Your task to perform on an android device: turn off notifications settings in the gmail app Image 0: 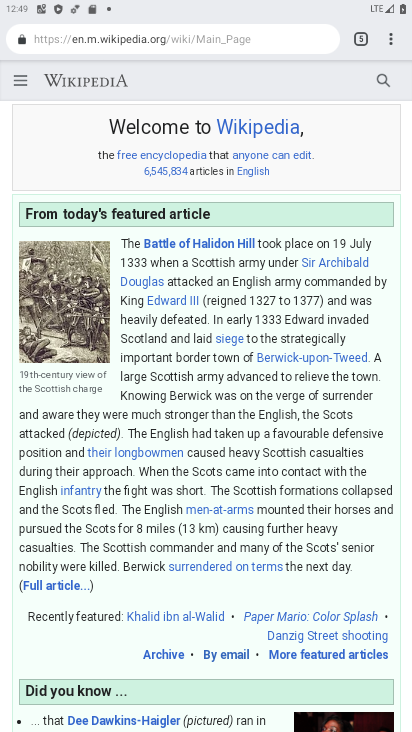
Step 0: press home button
Your task to perform on an android device: turn off notifications settings in the gmail app Image 1: 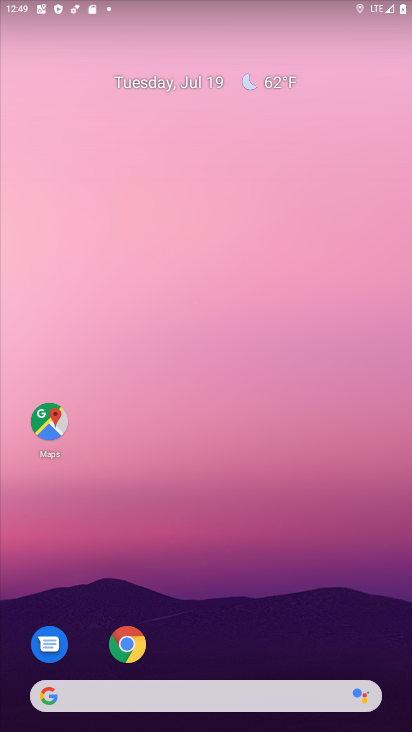
Step 1: drag from (232, 588) to (204, 124)
Your task to perform on an android device: turn off notifications settings in the gmail app Image 2: 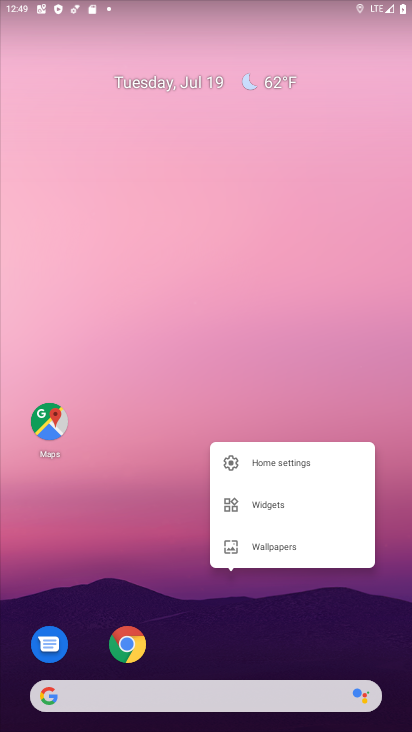
Step 2: click (204, 124)
Your task to perform on an android device: turn off notifications settings in the gmail app Image 3: 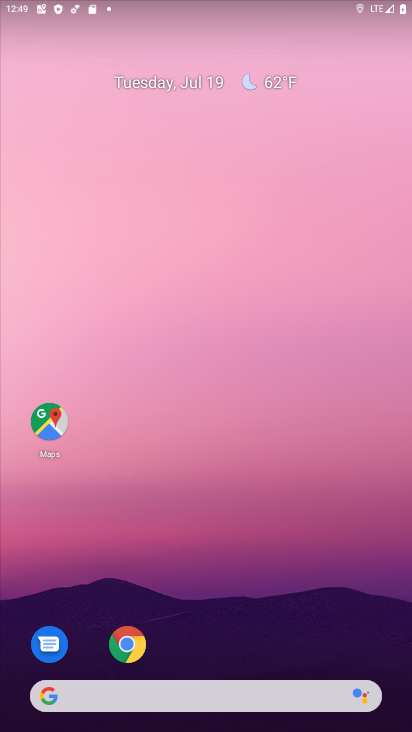
Step 3: drag from (257, 603) to (251, 157)
Your task to perform on an android device: turn off notifications settings in the gmail app Image 4: 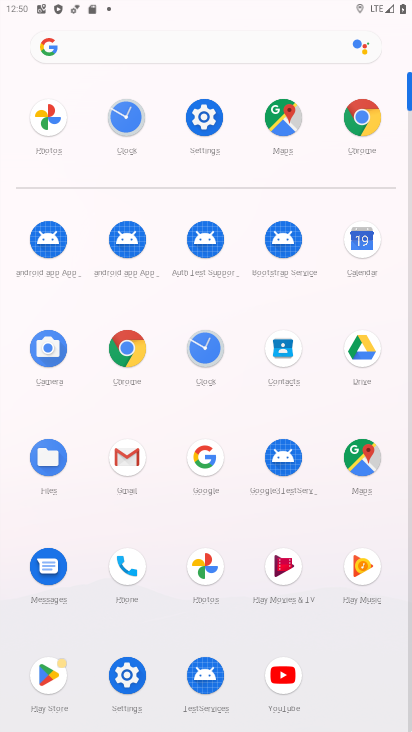
Step 4: click (121, 448)
Your task to perform on an android device: turn off notifications settings in the gmail app Image 5: 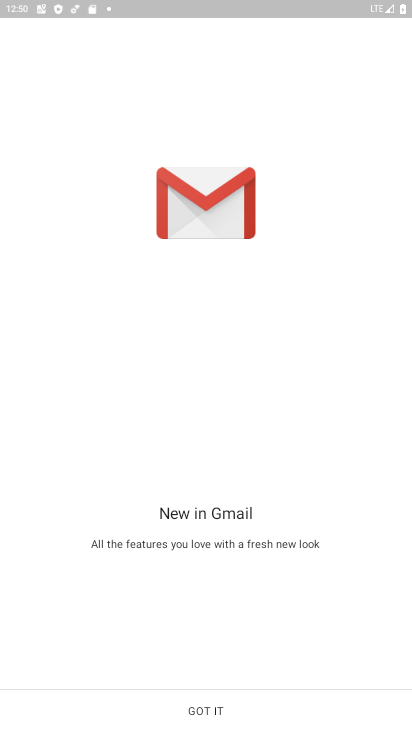
Step 5: click (202, 709)
Your task to perform on an android device: turn off notifications settings in the gmail app Image 6: 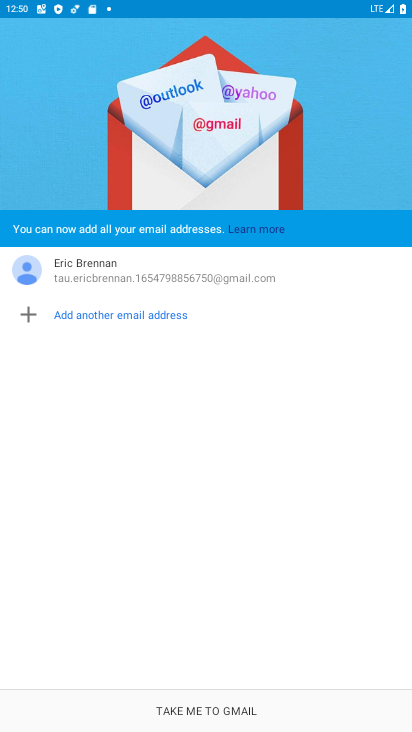
Step 6: click (202, 709)
Your task to perform on an android device: turn off notifications settings in the gmail app Image 7: 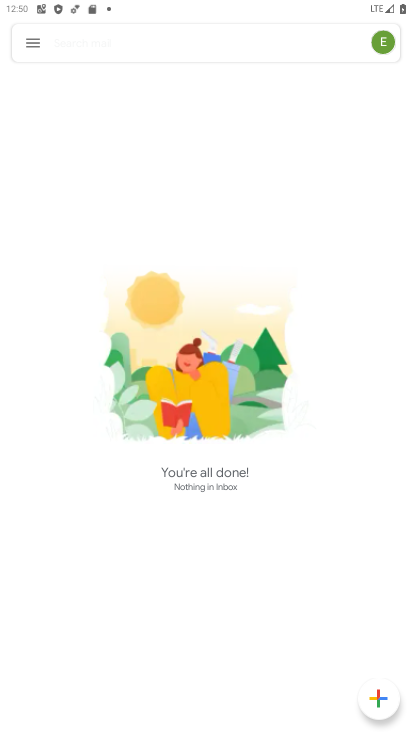
Step 7: click (30, 41)
Your task to perform on an android device: turn off notifications settings in the gmail app Image 8: 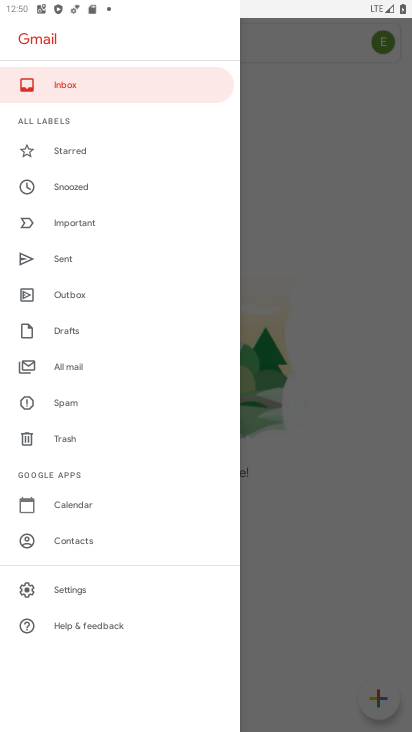
Step 8: click (67, 588)
Your task to perform on an android device: turn off notifications settings in the gmail app Image 9: 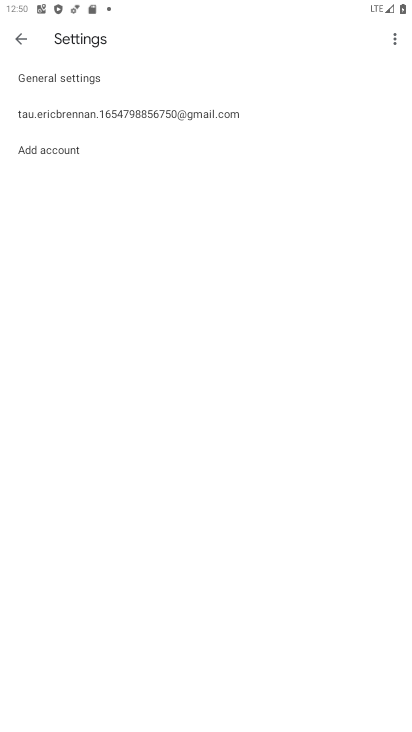
Step 9: click (66, 74)
Your task to perform on an android device: turn off notifications settings in the gmail app Image 10: 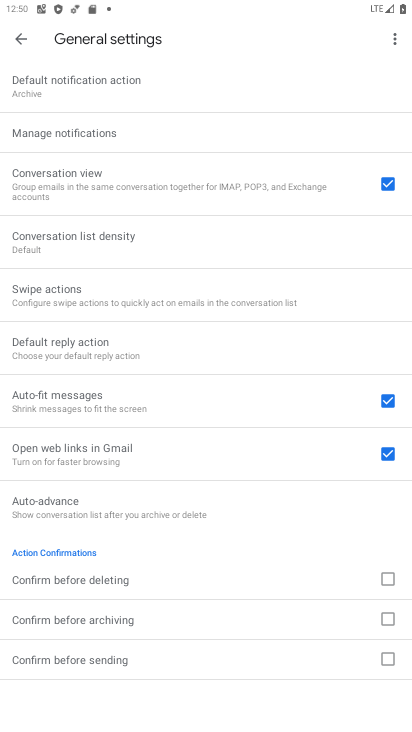
Step 10: click (74, 134)
Your task to perform on an android device: turn off notifications settings in the gmail app Image 11: 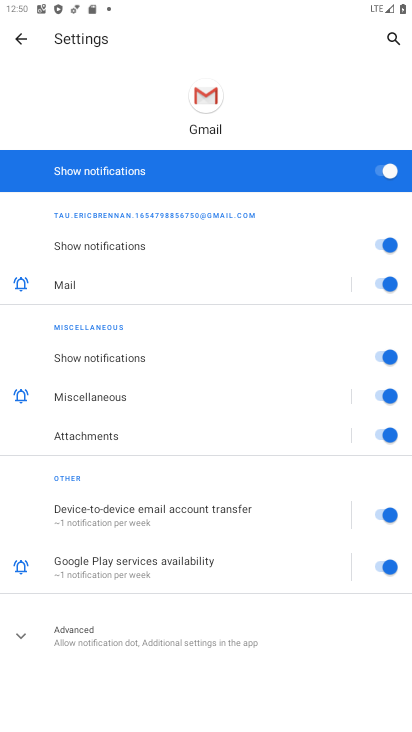
Step 11: click (390, 172)
Your task to perform on an android device: turn off notifications settings in the gmail app Image 12: 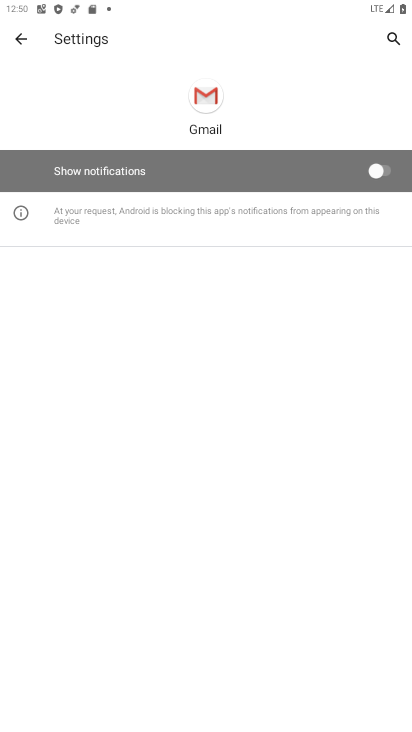
Step 12: task complete